Your task to perform on an android device: Open ESPN.com Image 0: 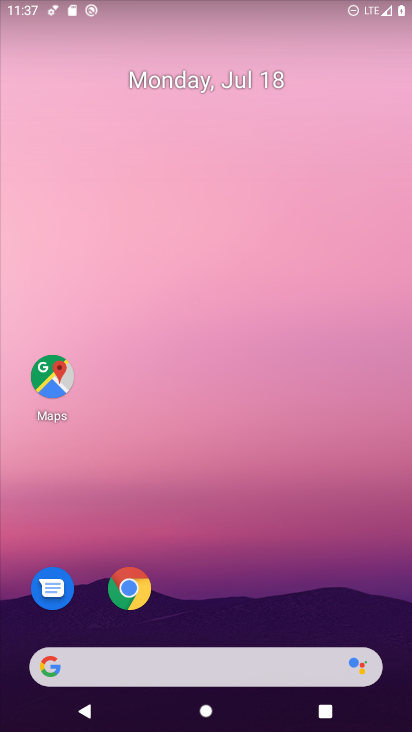
Step 0: drag from (200, 649) to (267, 97)
Your task to perform on an android device: Open ESPN.com Image 1: 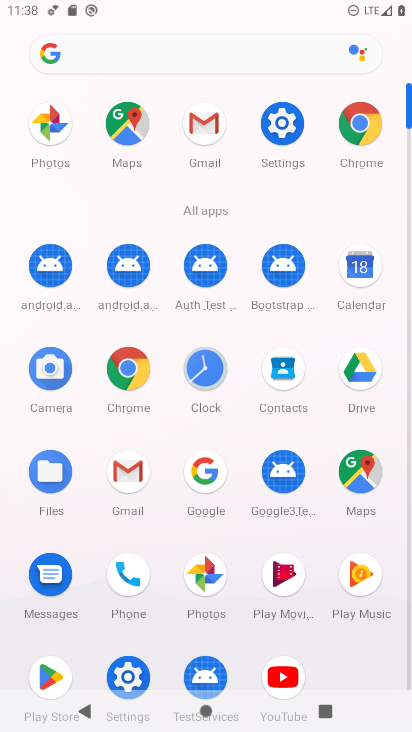
Step 1: click (124, 372)
Your task to perform on an android device: Open ESPN.com Image 2: 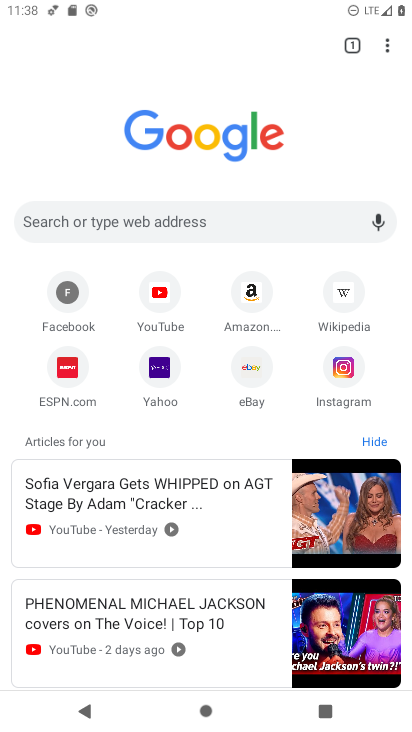
Step 2: click (72, 367)
Your task to perform on an android device: Open ESPN.com Image 3: 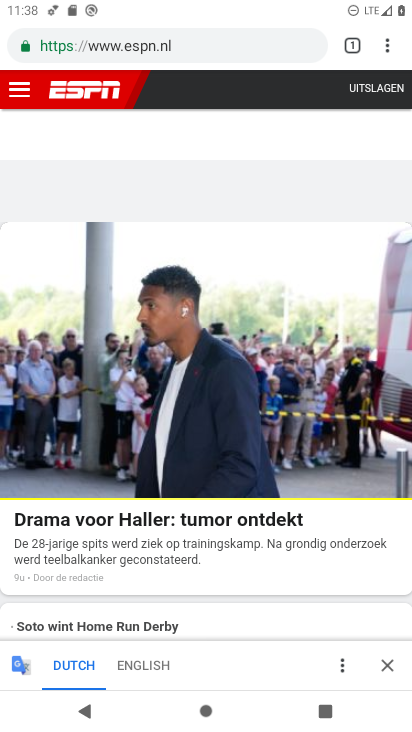
Step 3: task complete